Your task to perform on an android device: check storage Image 0: 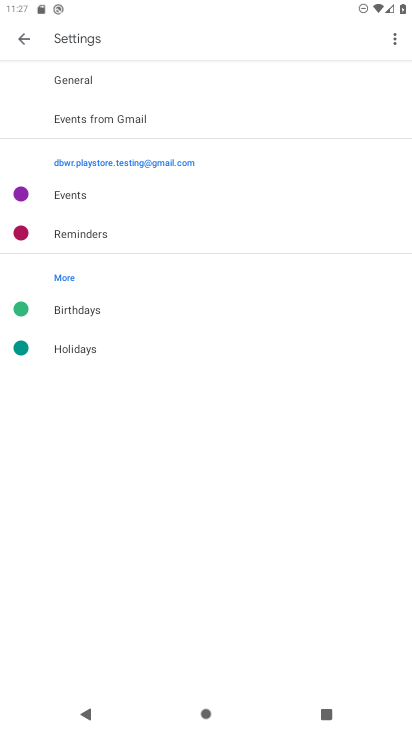
Step 0: press back button
Your task to perform on an android device: check storage Image 1: 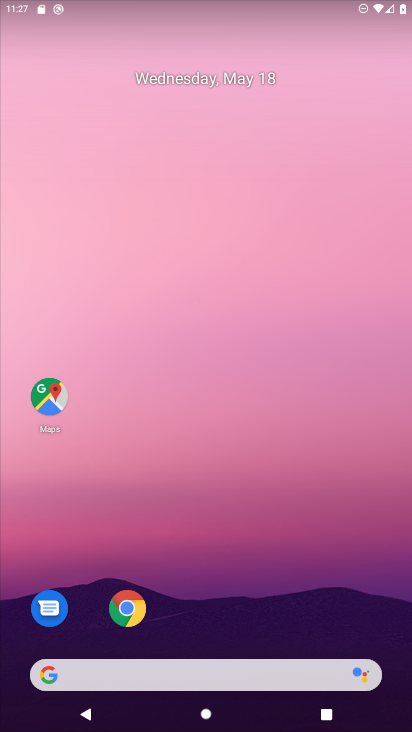
Step 1: drag from (229, 577) to (207, 104)
Your task to perform on an android device: check storage Image 2: 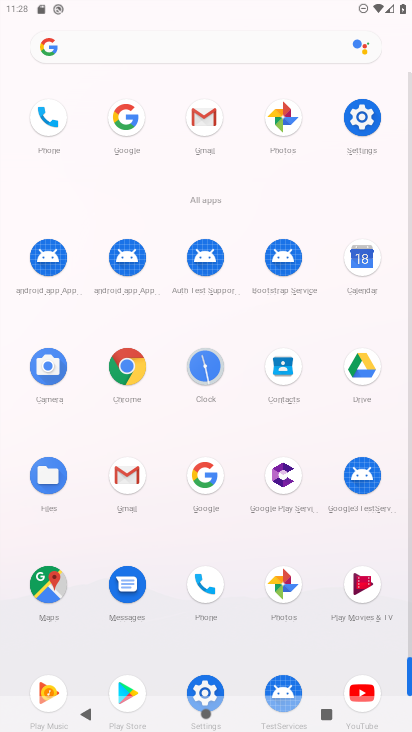
Step 2: click (361, 118)
Your task to perform on an android device: check storage Image 3: 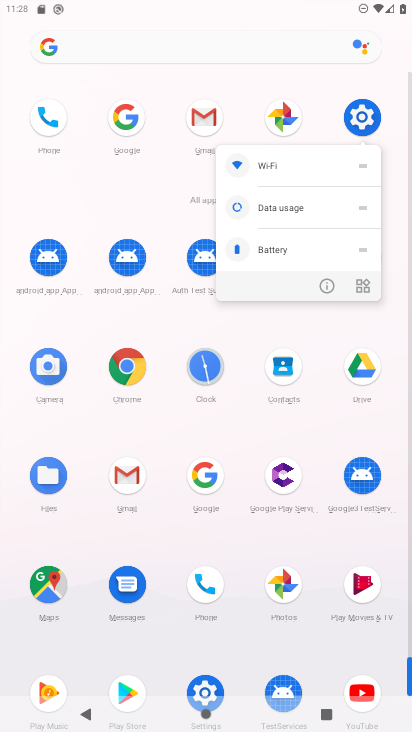
Step 3: click (365, 113)
Your task to perform on an android device: check storage Image 4: 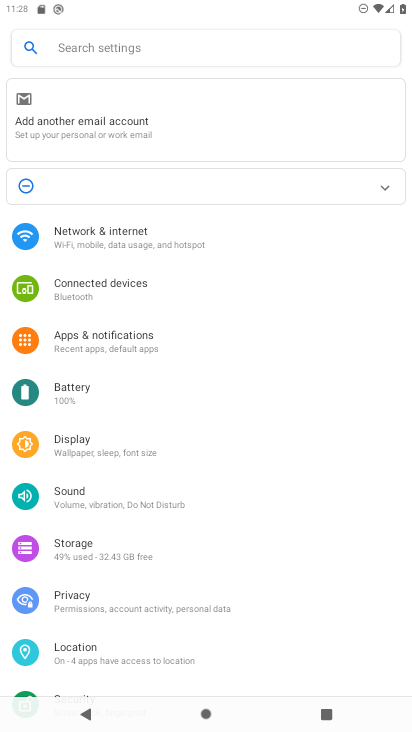
Step 4: click (80, 543)
Your task to perform on an android device: check storage Image 5: 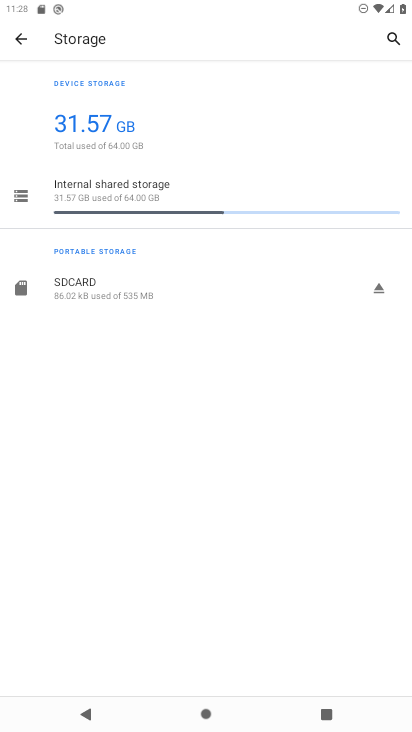
Step 5: task complete